Your task to perform on an android device: Open Chrome and go to settings Image 0: 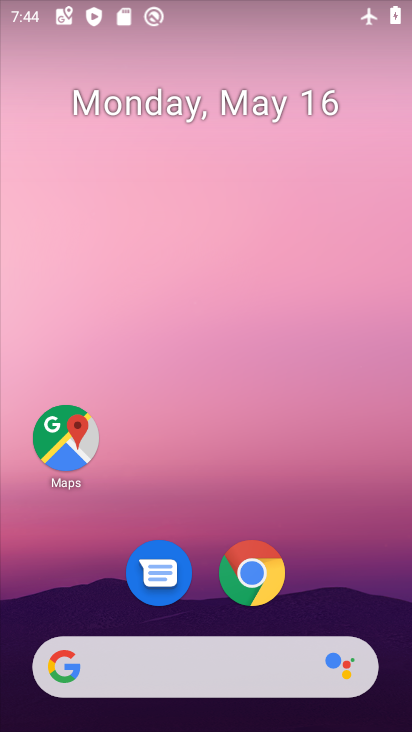
Step 0: drag from (338, 126) to (343, 14)
Your task to perform on an android device: Open Chrome and go to settings Image 1: 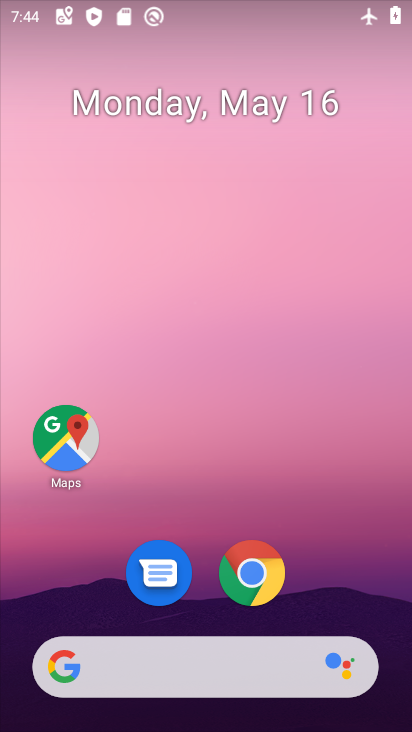
Step 1: drag from (346, 471) to (195, 2)
Your task to perform on an android device: Open Chrome and go to settings Image 2: 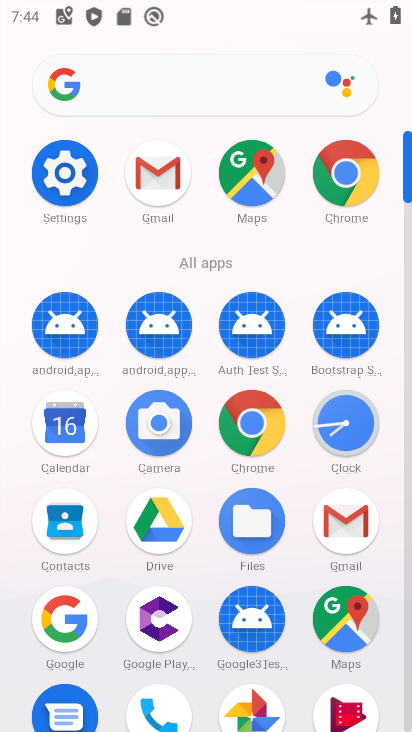
Step 2: click (67, 182)
Your task to perform on an android device: Open Chrome and go to settings Image 3: 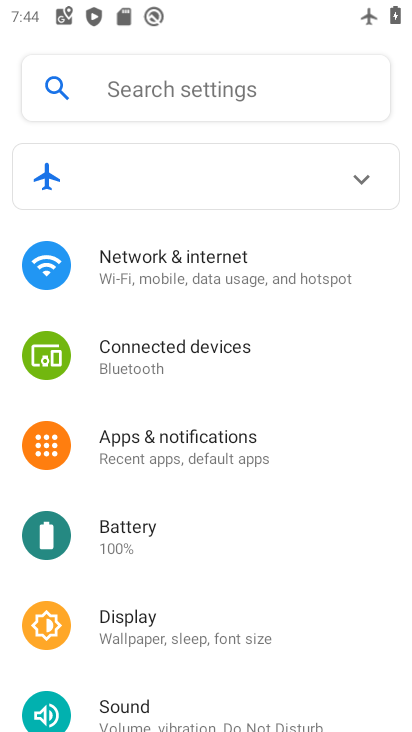
Step 3: press home button
Your task to perform on an android device: Open Chrome and go to settings Image 4: 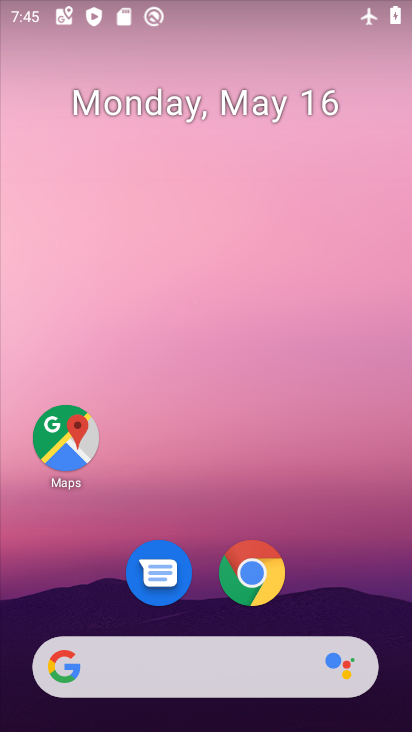
Step 4: click (256, 565)
Your task to perform on an android device: Open Chrome and go to settings Image 5: 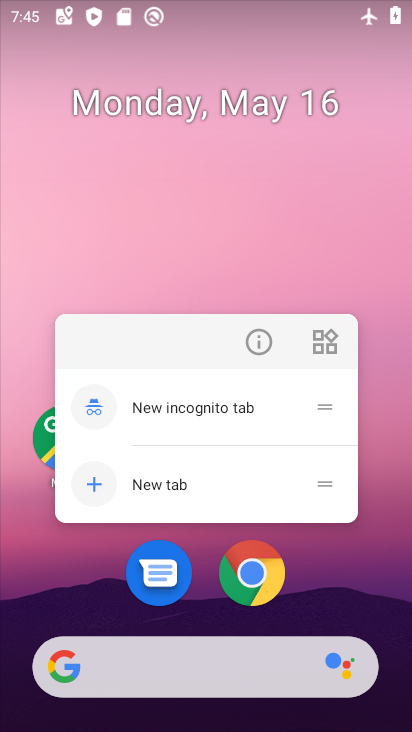
Step 5: click (256, 565)
Your task to perform on an android device: Open Chrome and go to settings Image 6: 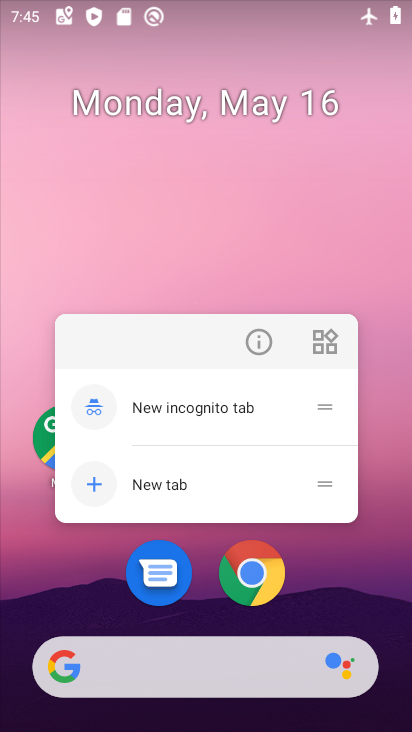
Step 6: click (256, 565)
Your task to perform on an android device: Open Chrome and go to settings Image 7: 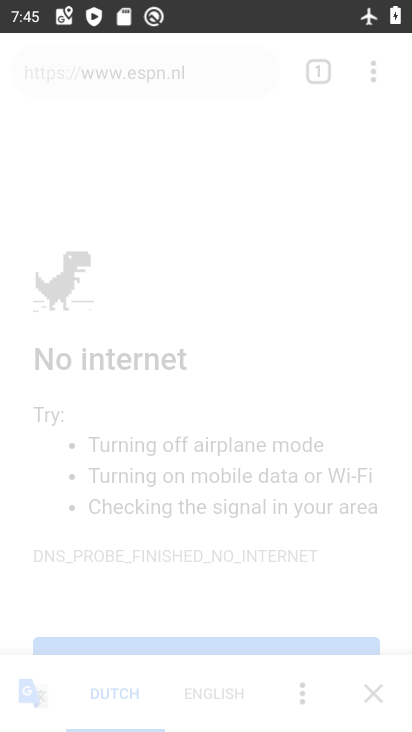
Step 7: click (256, 565)
Your task to perform on an android device: Open Chrome and go to settings Image 8: 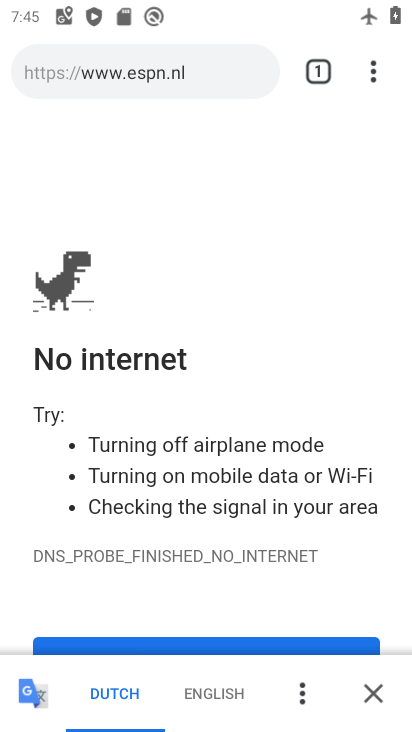
Step 8: task complete